Your task to perform on an android device: clear history in the chrome app Image 0: 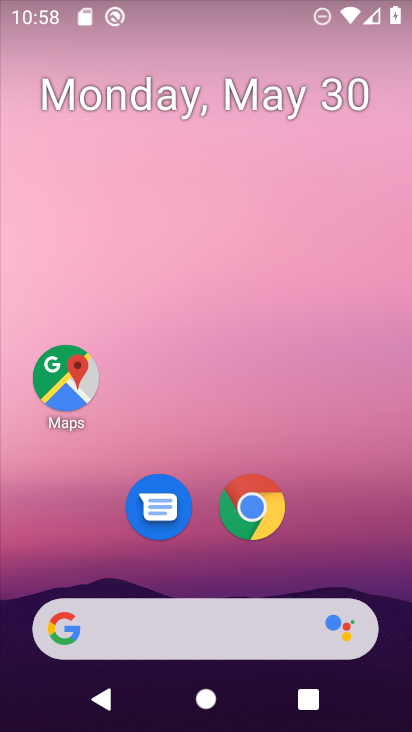
Step 0: drag from (401, 627) to (340, 66)
Your task to perform on an android device: clear history in the chrome app Image 1: 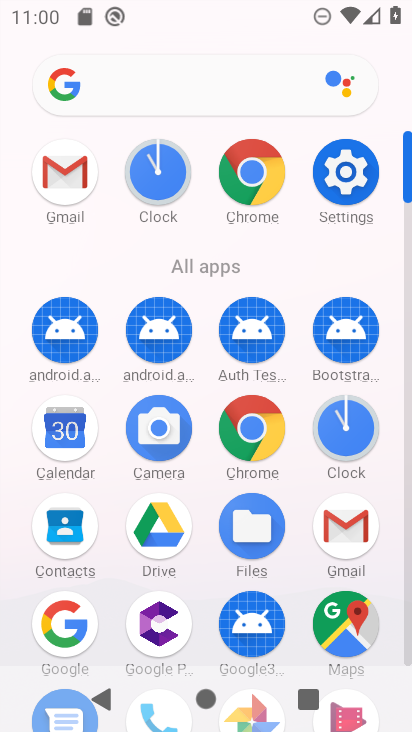
Step 1: click (243, 203)
Your task to perform on an android device: clear history in the chrome app Image 2: 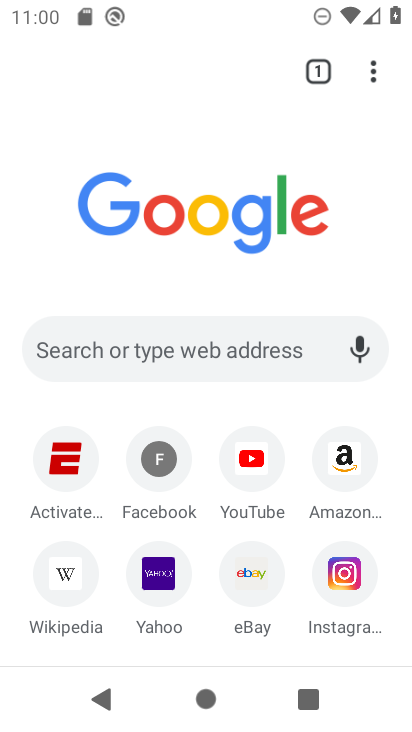
Step 2: click (372, 60)
Your task to perform on an android device: clear history in the chrome app Image 3: 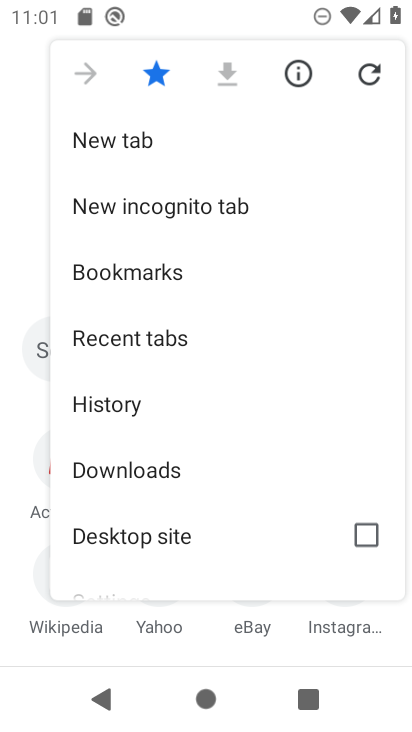
Step 3: click (142, 400)
Your task to perform on an android device: clear history in the chrome app Image 4: 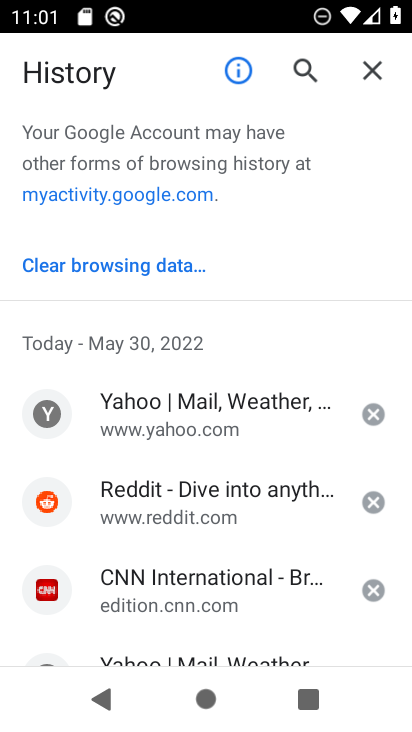
Step 4: click (139, 265)
Your task to perform on an android device: clear history in the chrome app Image 5: 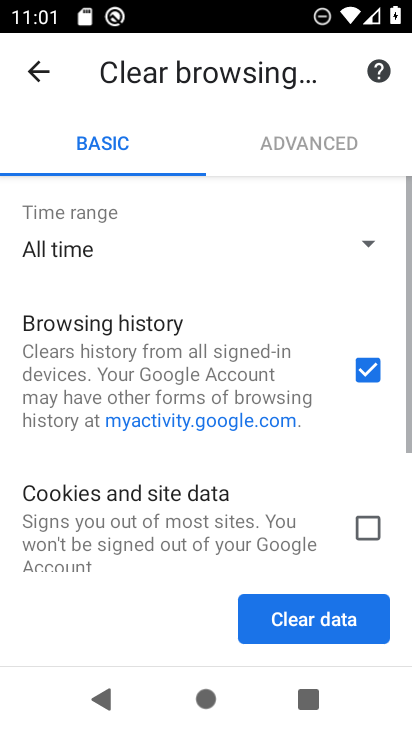
Step 5: click (304, 610)
Your task to perform on an android device: clear history in the chrome app Image 6: 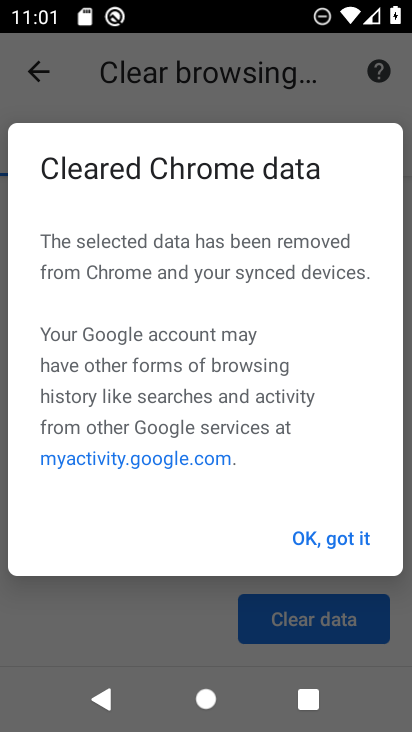
Step 6: click (325, 547)
Your task to perform on an android device: clear history in the chrome app Image 7: 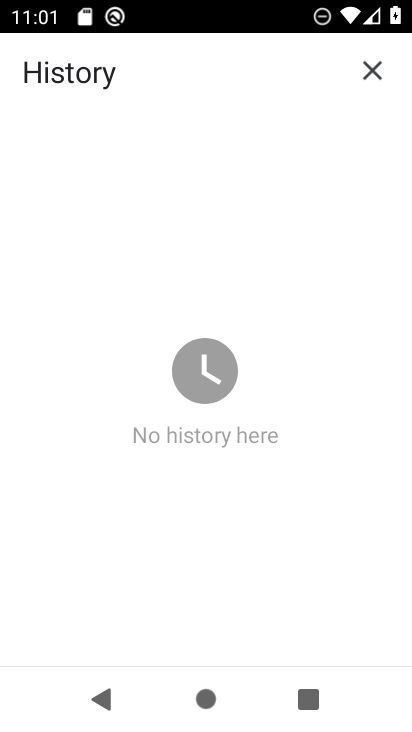
Step 7: task complete